Your task to perform on an android device: View the shopping cart on bestbuy.com. Image 0: 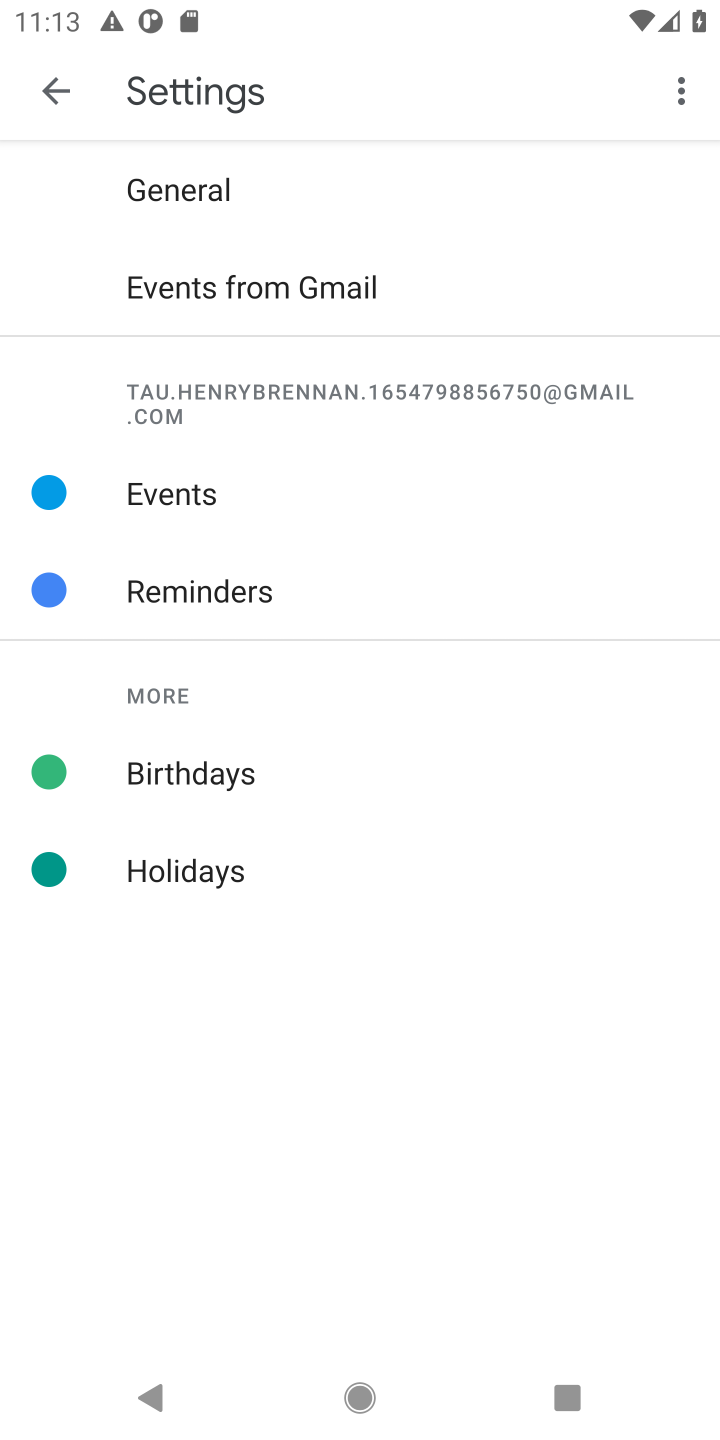
Step 0: press home button
Your task to perform on an android device: View the shopping cart on bestbuy.com. Image 1: 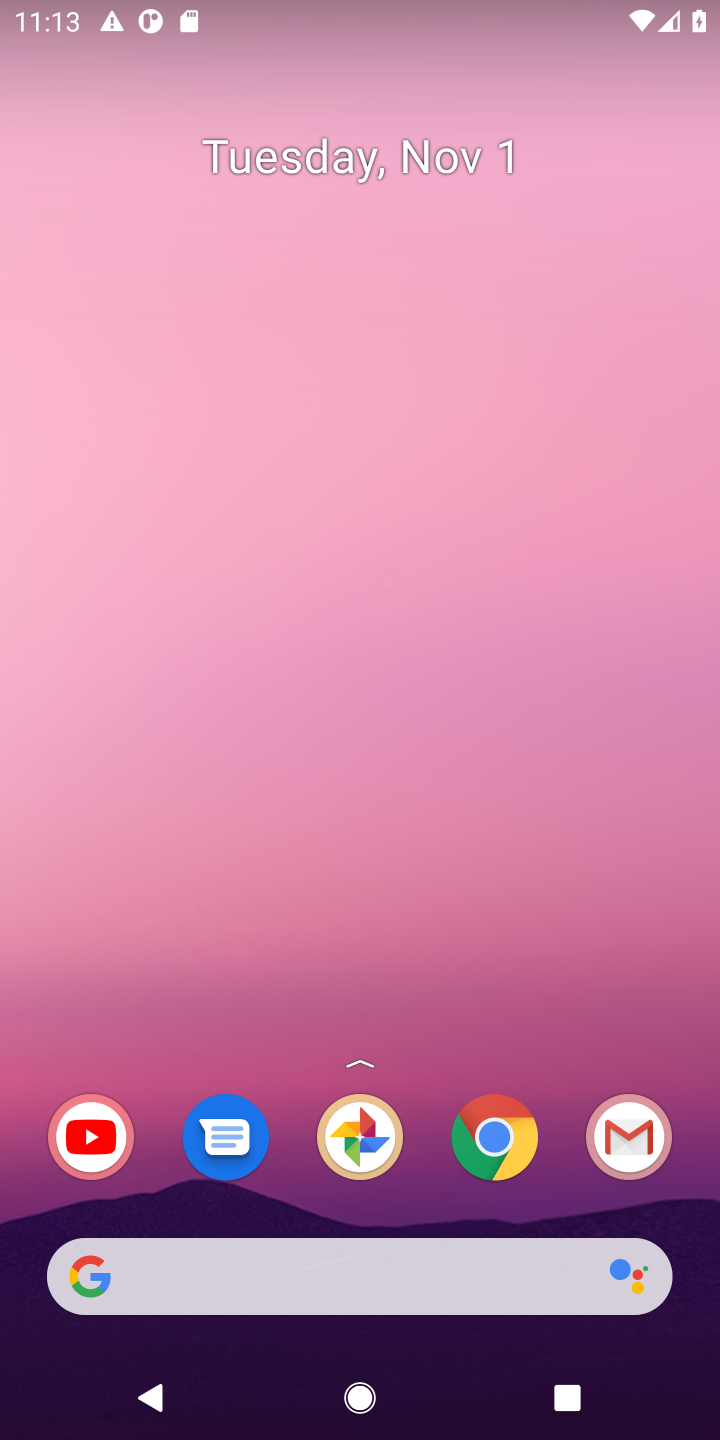
Step 1: click (354, 1281)
Your task to perform on an android device: View the shopping cart on bestbuy.com. Image 2: 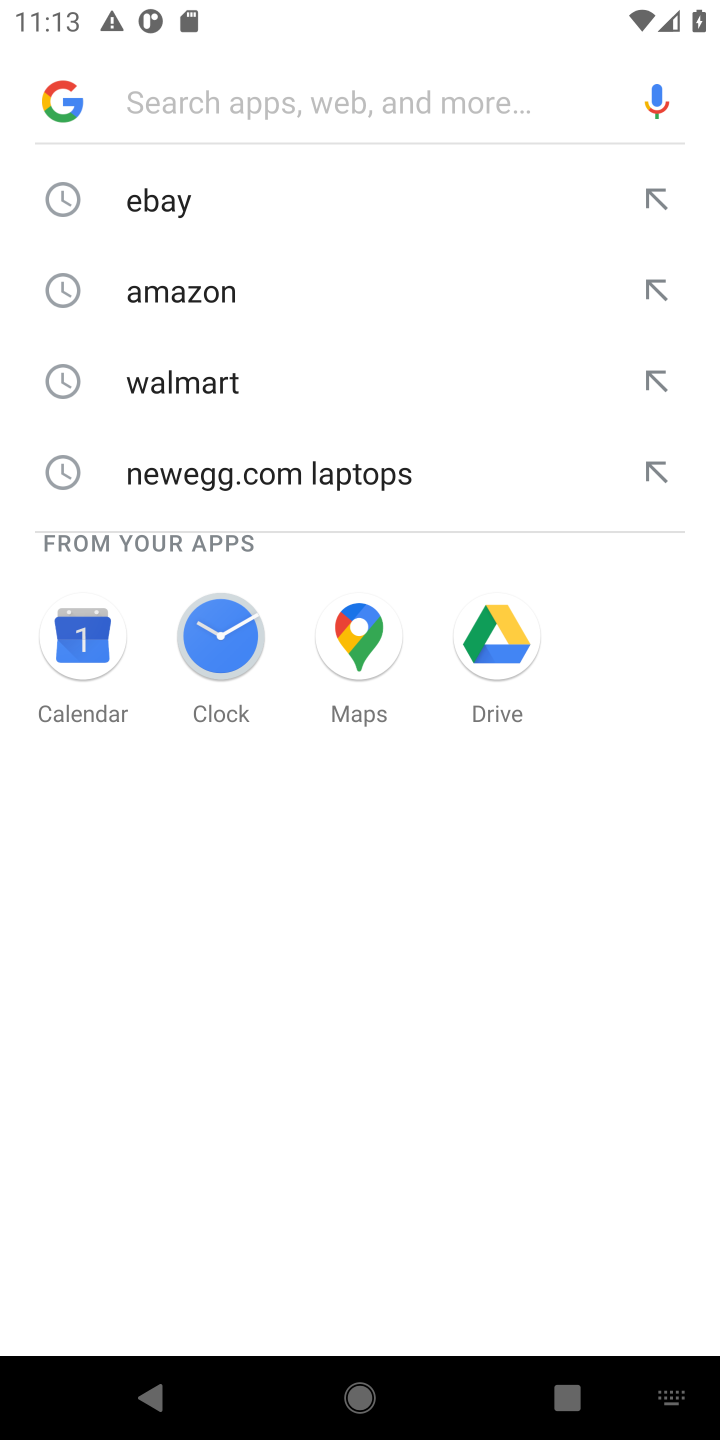
Step 2: type "bestbuy.com."
Your task to perform on an android device: View the shopping cart on bestbuy.com. Image 3: 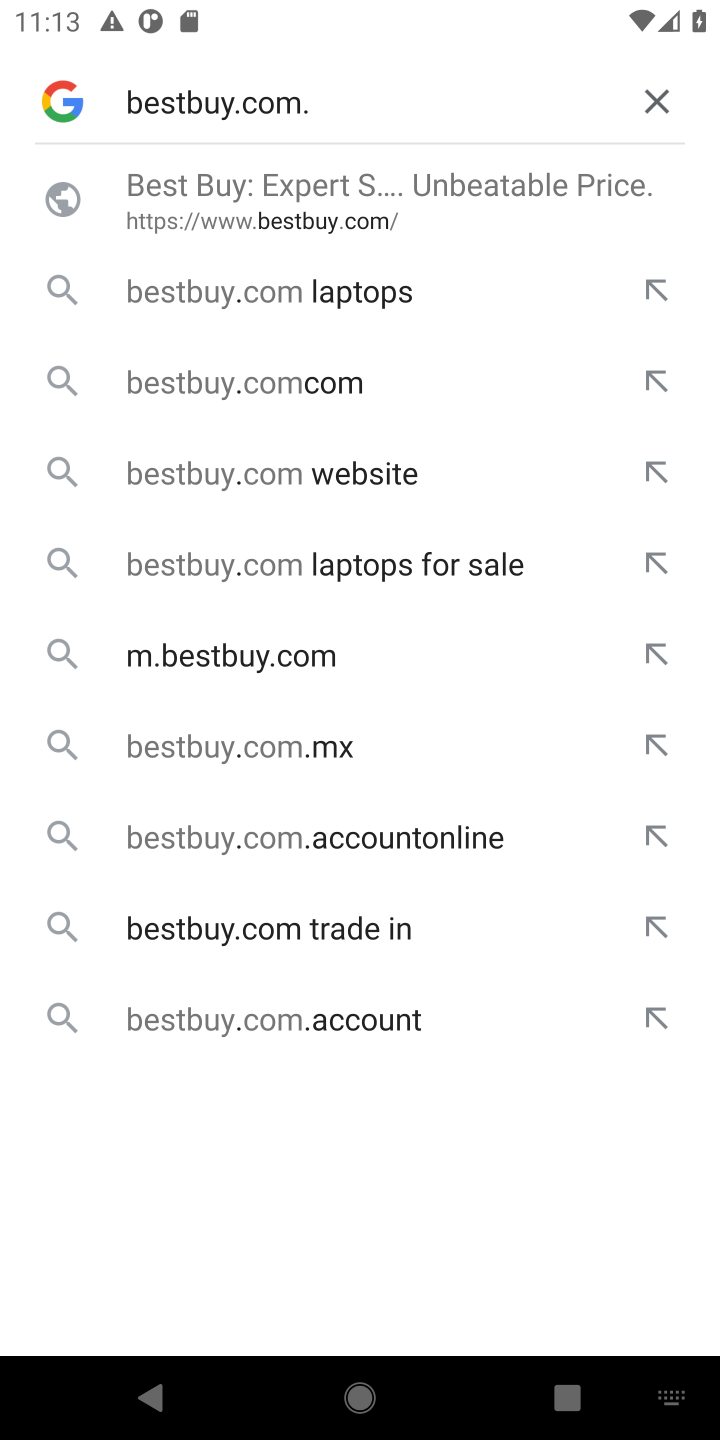
Step 3: click (209, 225)
Your task to perform on an android device: View the shopping cart on bestbuy.com. Image 4: 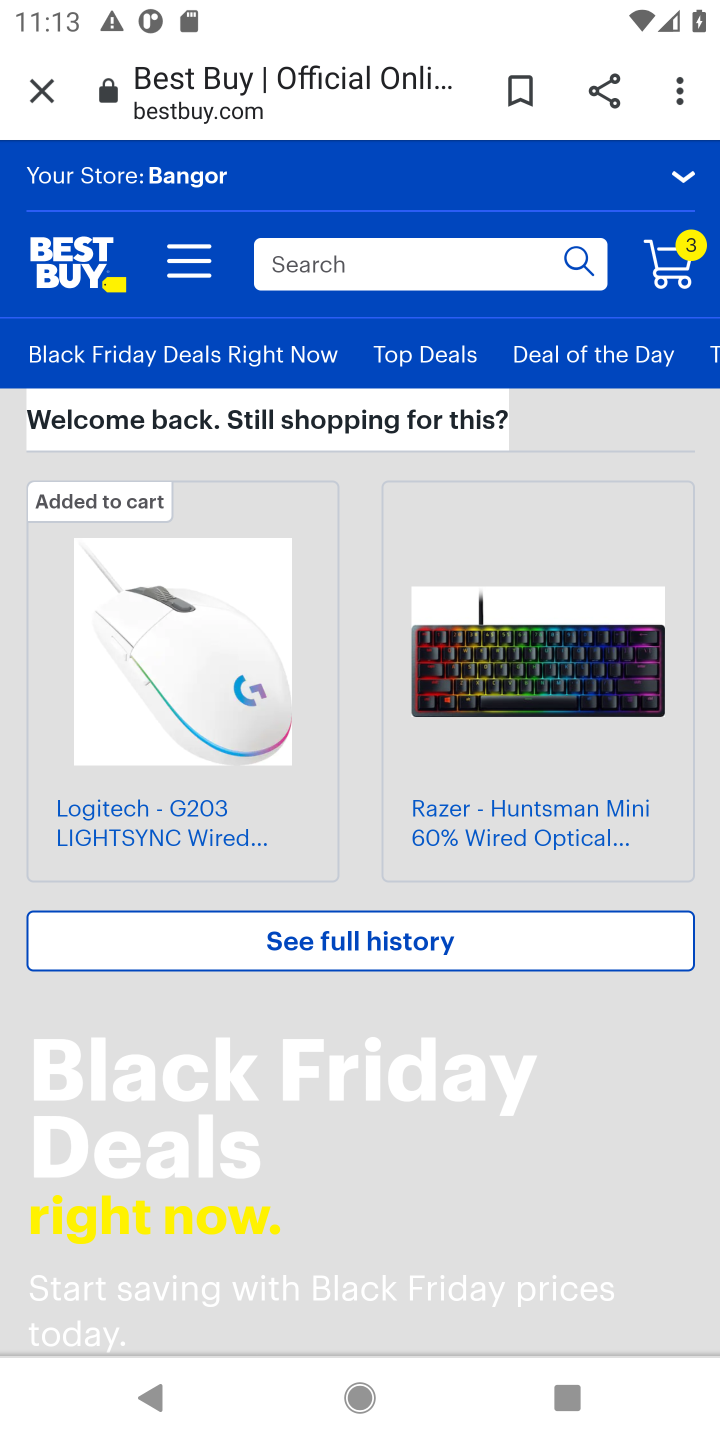
Step 4: click (677, 269)
Your task to perform on an android device: View the shopping cart on bestbuy.com. Image 5: 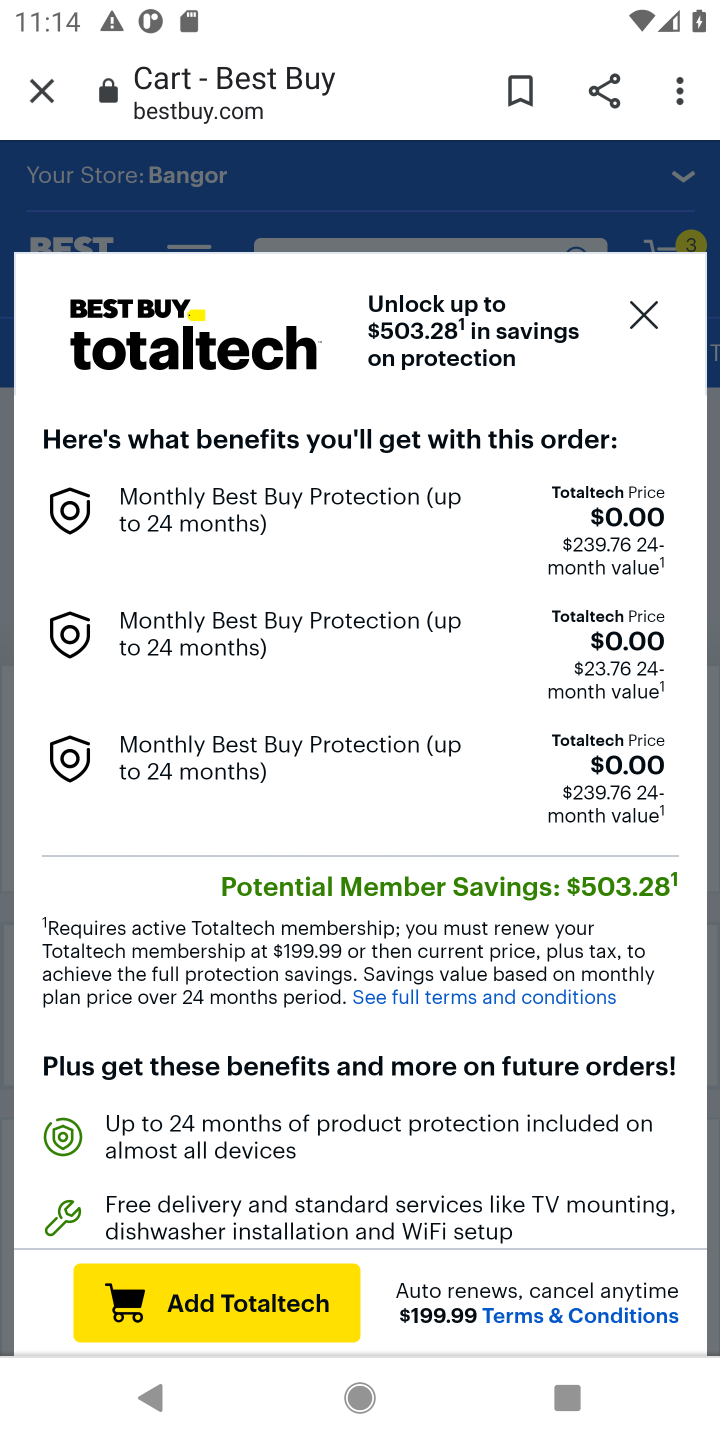
Step 5: click (641, 319)
Your task to perform on an android device: View the shopping cart on bestbuy.com. Image 6: 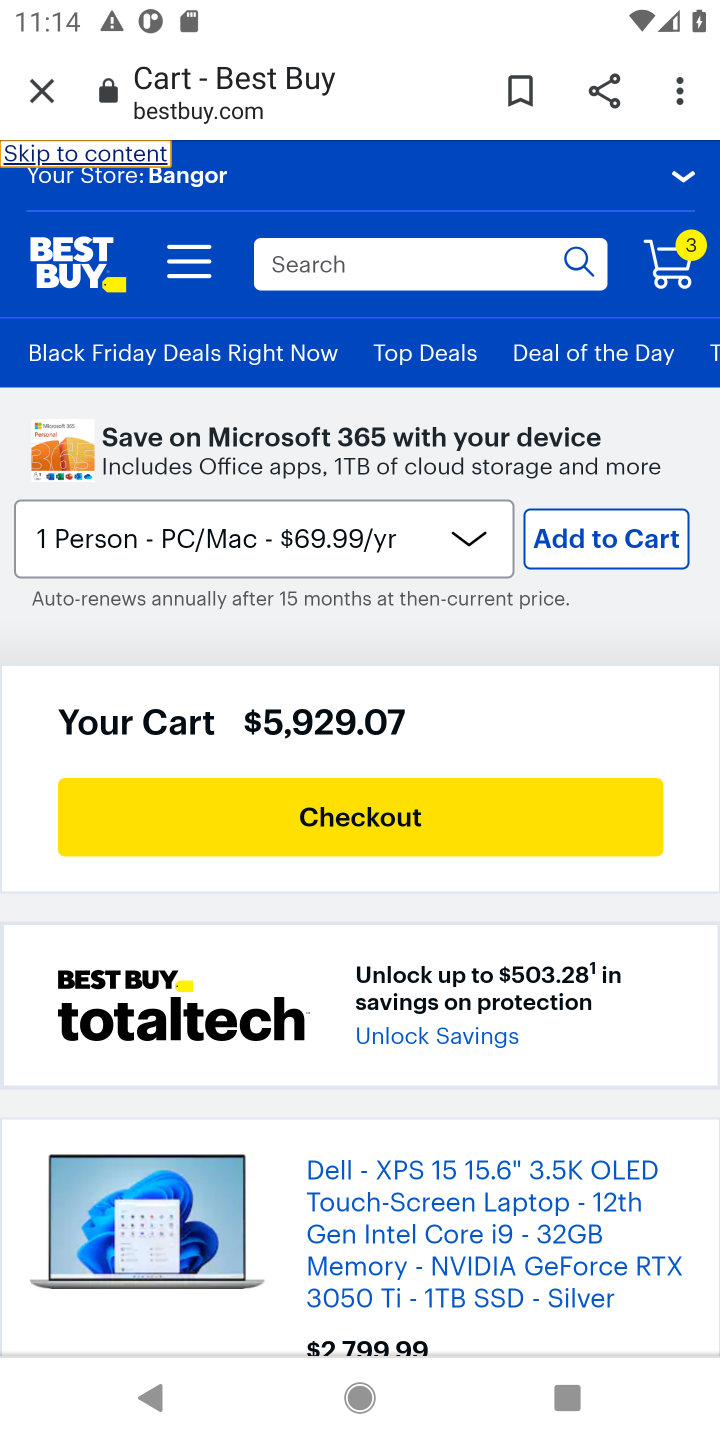
Step 6: task complete